Your task to perform on an android device: make emails show in primary in the gmail app Image 0: 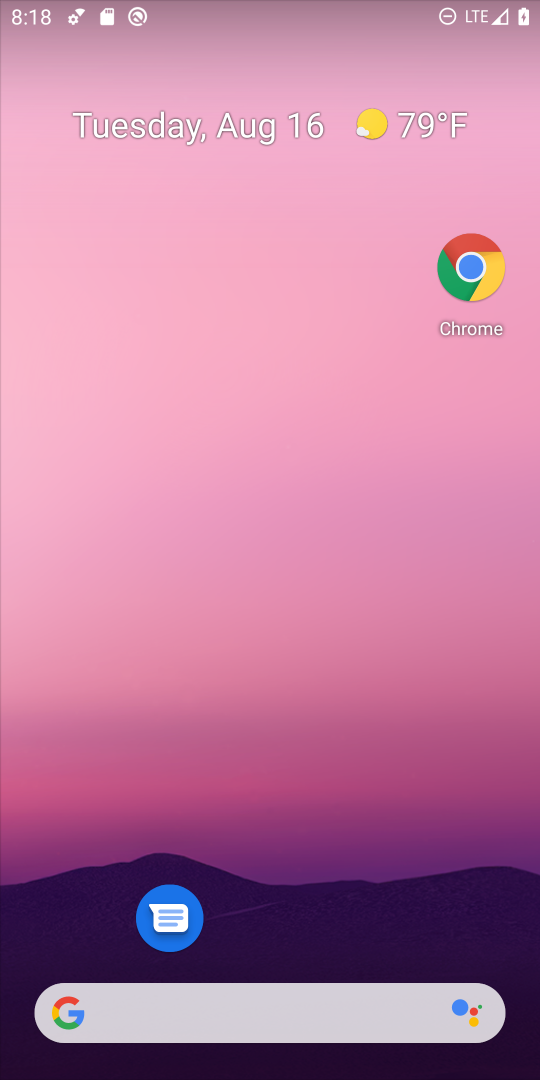
Step 0: drag from (324, 242) to (336, 164)
Your task to perform on an android device: make emails show in primary in the gmail app Image 1: 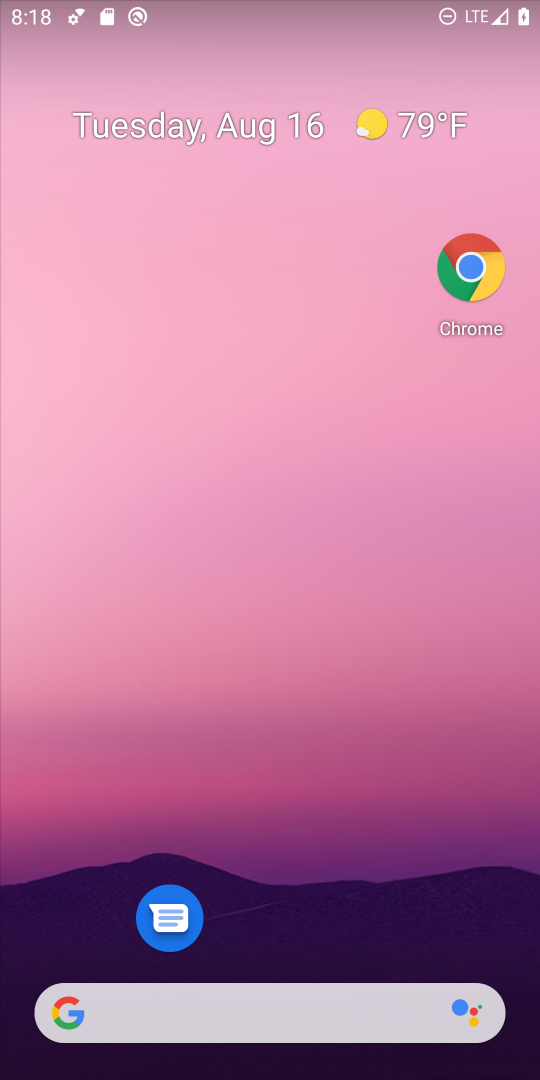
Step 1: drag from (370, 957) to (395, 228)
Your task to perform on an android device: make emails show in primary in the gmail app Image 2: 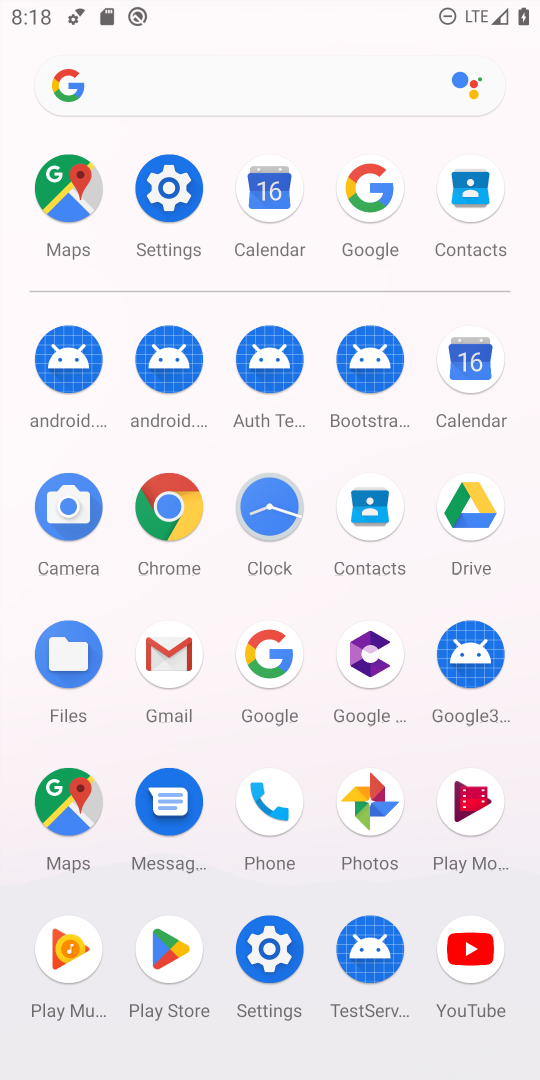
Step 2: click (156, 677)
Your task to perform on an android device: make emails show in primary in the gmail app Image 3: 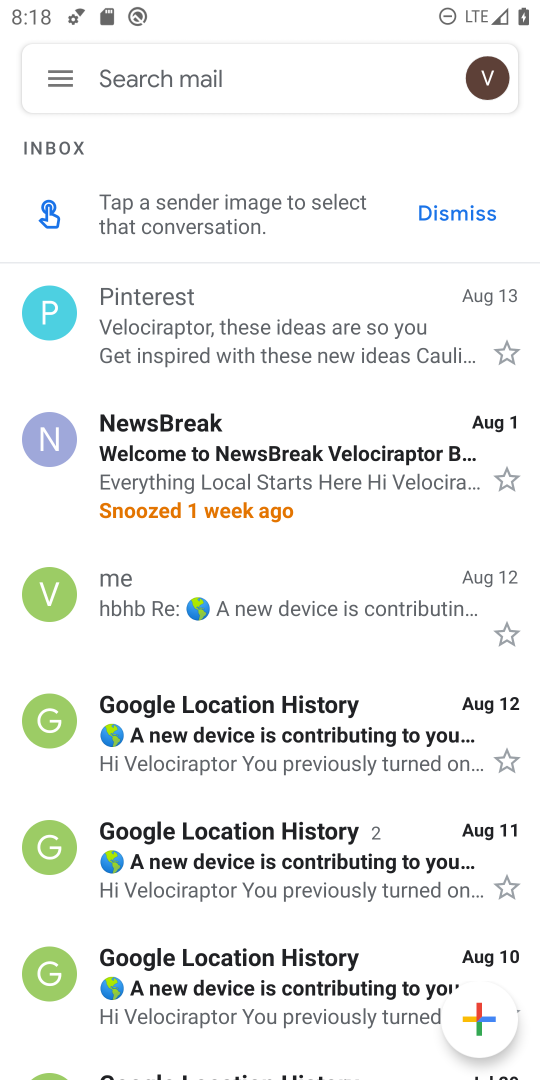
Step 3: click (51, 94)
Your task to perform on an android device: make emails show in primary in the gmail app Image 4: 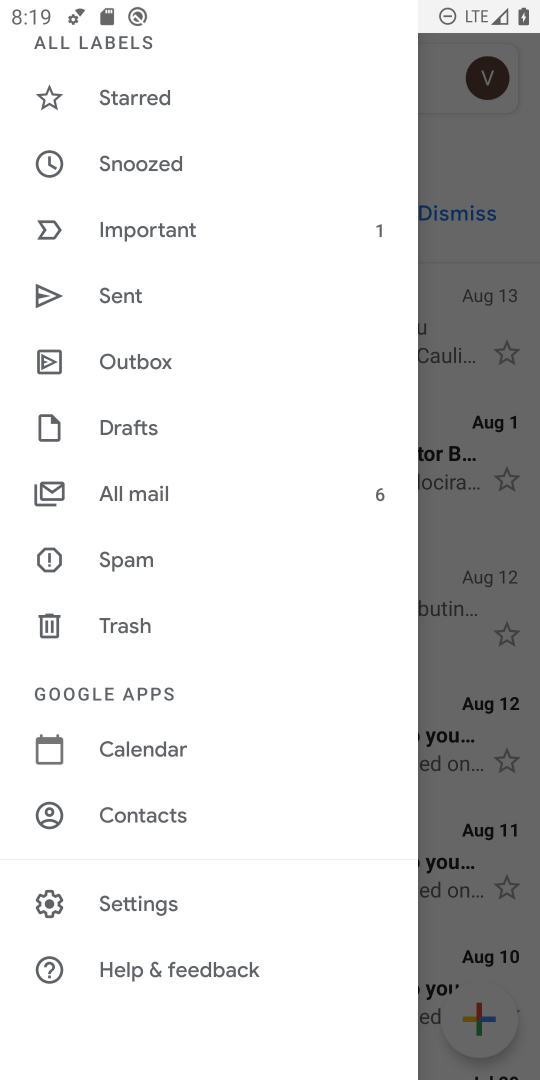
Step 4: click (142, 902)
Your task to perform on an android device: make emails show in primary in the gmail app Image 5: 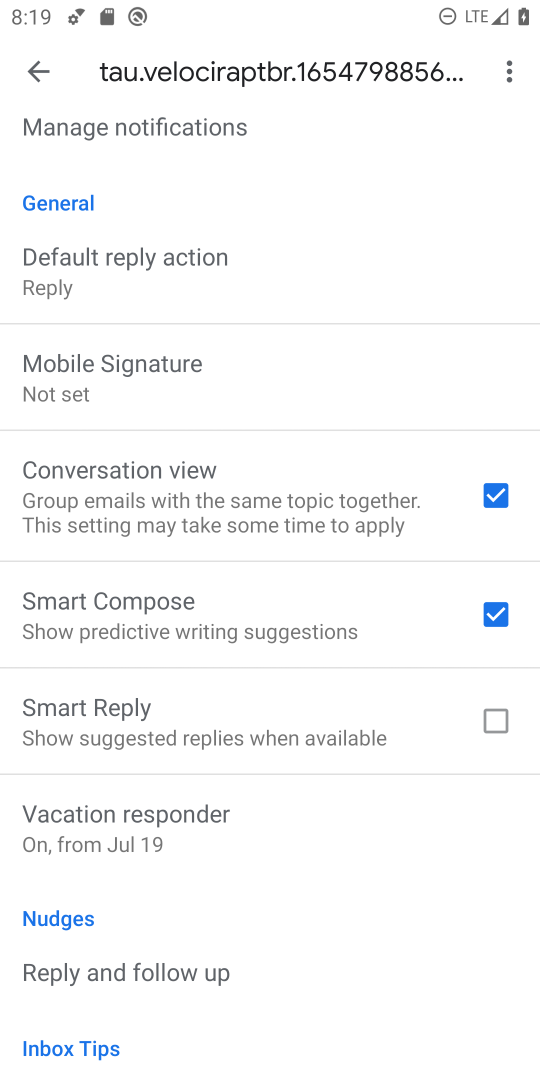
Step 5: task complete